Your task to perform on an android device: toggle location history Image 0: 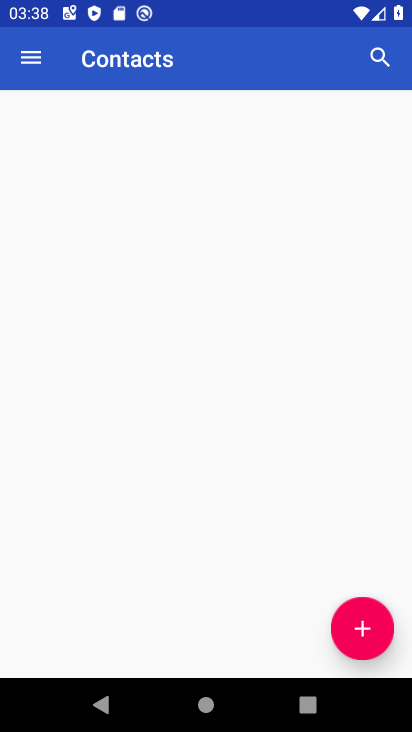
Step 0: press home button
Your task to perform on an android device: toggle location history Image 1: 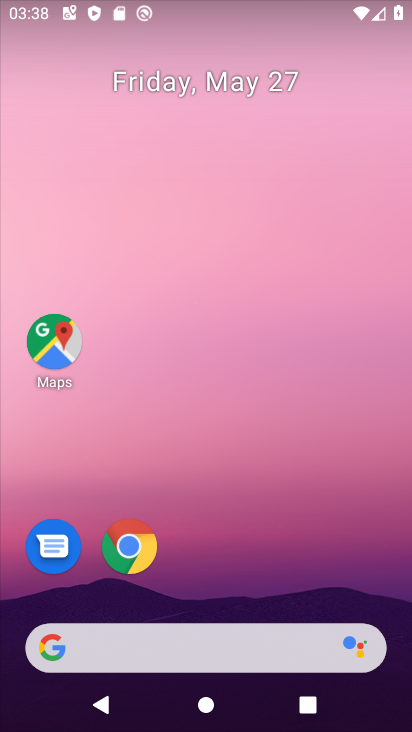
Step 1: drag from (402, 539) to (397, 139)
Your task to perform on an android device: toggle location history Image 2: 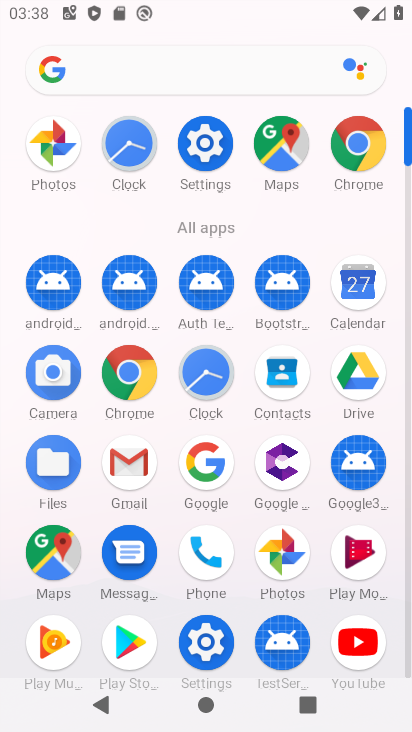
Step 2: click (206, 651)
Your task to perform on an android device: toggle location history Image 3: 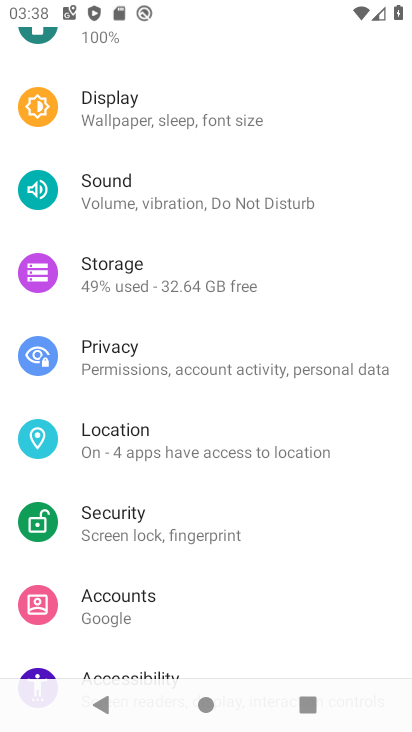
Step 3: drag from (200, 674) to (196, 567)
Your task to perform on an android device: toggle location history Image 4: 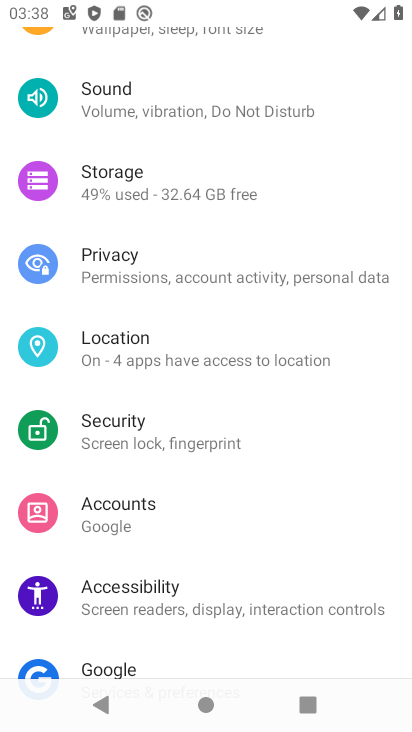
Step 4: click (101, 344)
Your task to perform on an android device: toggle location history Image 5: 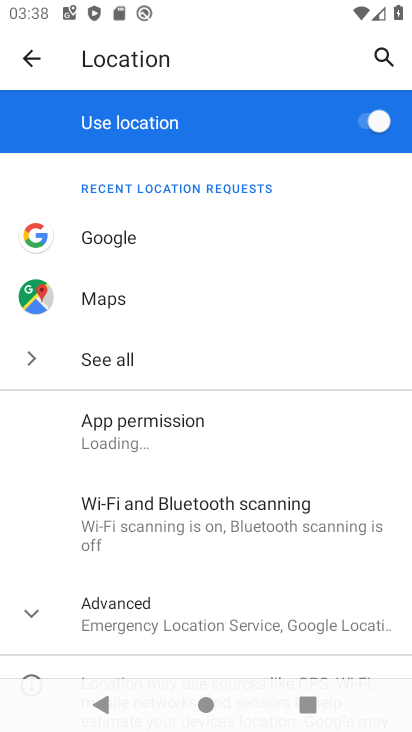
Step 5: click (29, 612)
Your task to perform on an android device: toggle location history Image 6: 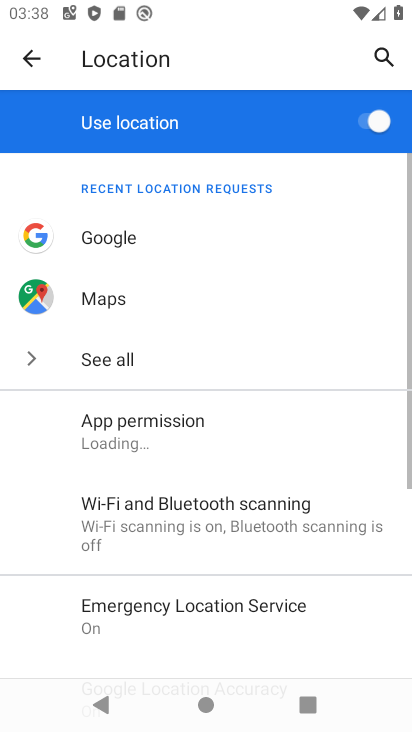
Step 6: drag from (332, 641) to (309, 238)
Your task to perform on an android device: toggle location history Image 7: 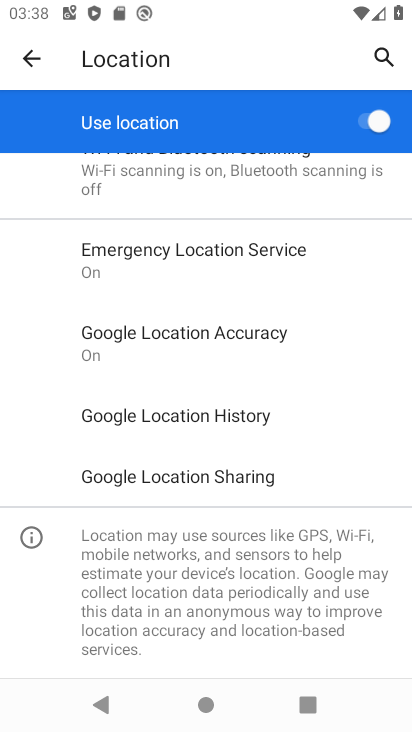
Step 7: click (201, 417)
Your task to perform on an android device: toggle location history Image 8: 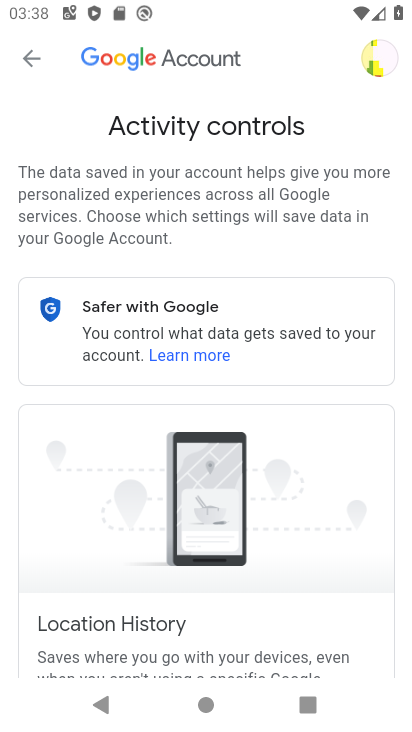
Step 8: drag from (286, 602) to (333, 84)
Your task to perform on an android device: toggle location history Image 9: 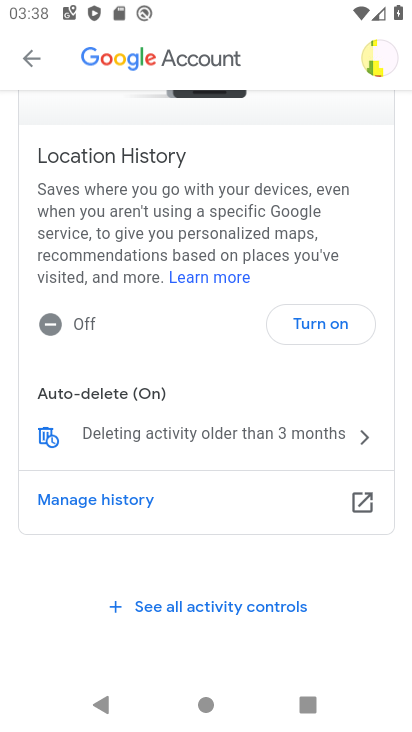
Step 9: click (315, 323)
Your task to perform on an android device: toggle location history Image 10: 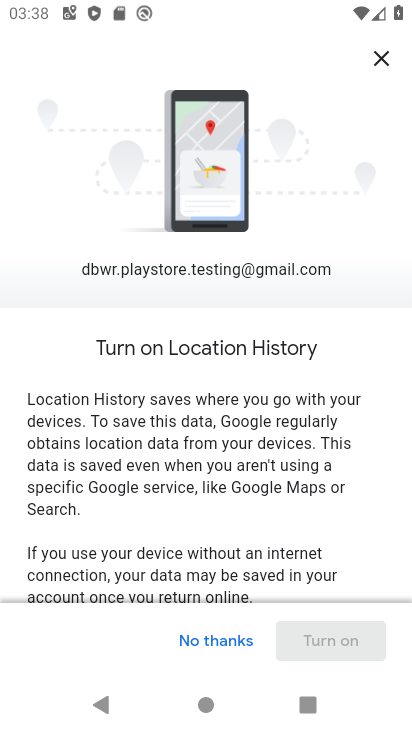
Step 10: drag from (258, 548) to (259, 255)
Your task to perform on an android device: toggle location history Image 11: 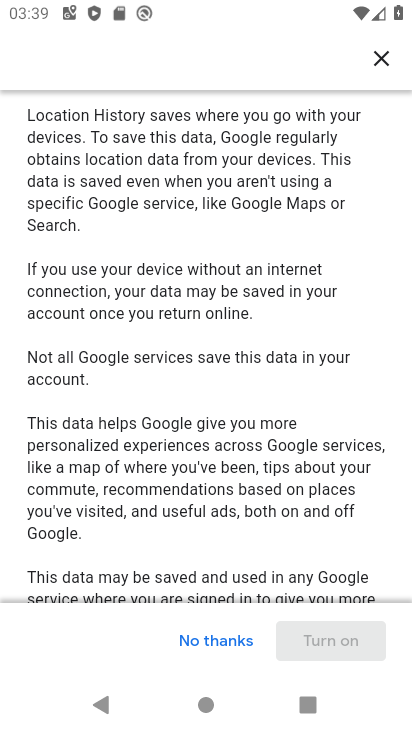
Step 11: drag from (235, 549) to (239, 252)
Your task to perform on an android device: toggle location history Image 12: 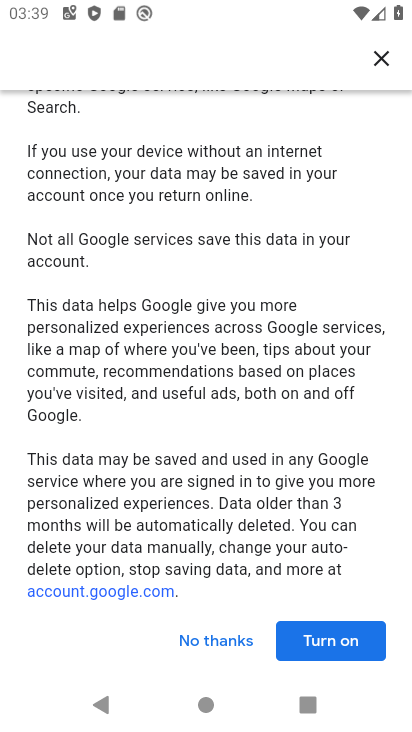
Step 12: click (335, 642)
Your task to perform on an android device: toggle location history Image 13: 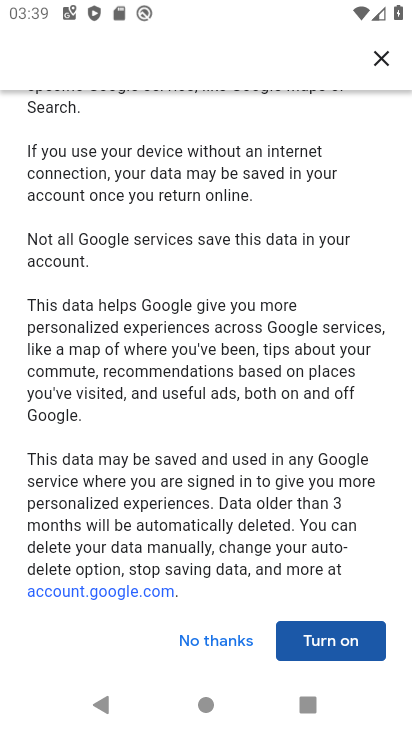
Step 13: click (302, 632)
Your task to perform on an android device: toggle location history Image 14: 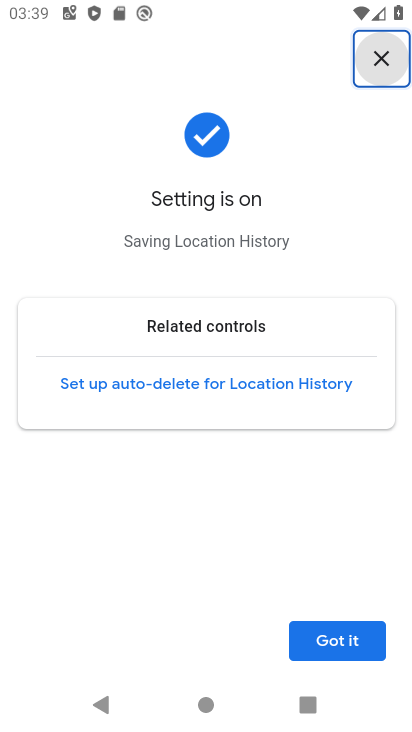
Step 14: click (331, 641)
Your task to perform on an android device: toggle location history Image 15: 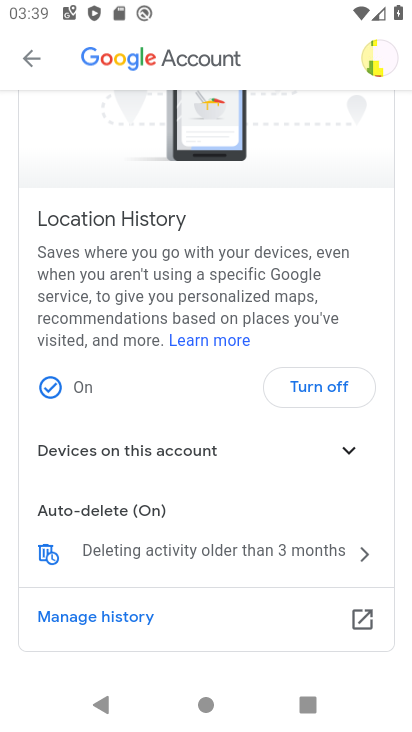
Step 15: click (333, 642)
Your task to perform on an android device: toggle location history Image 16: 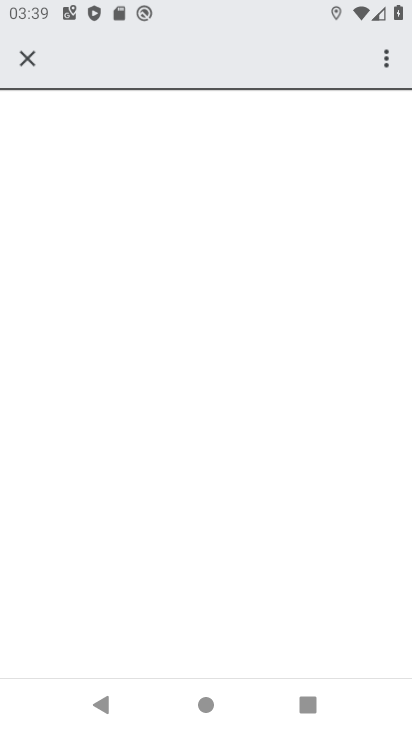
Step 16: click (17, 57)
Your task to perform on an android device: toggle location history Image 17: 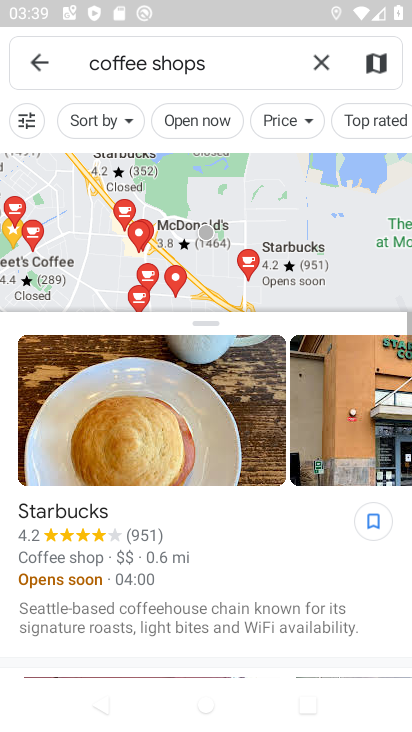
Step 17: task complete